Your task to perform on an android device: see sites visited before in the chrome app Image 0: 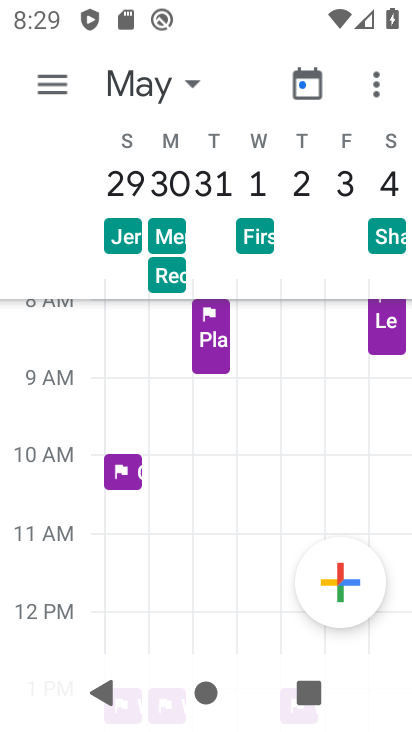
Step 0: press home button
Your task to perform on an android device: see sites visited before in the chrome app Image 1: 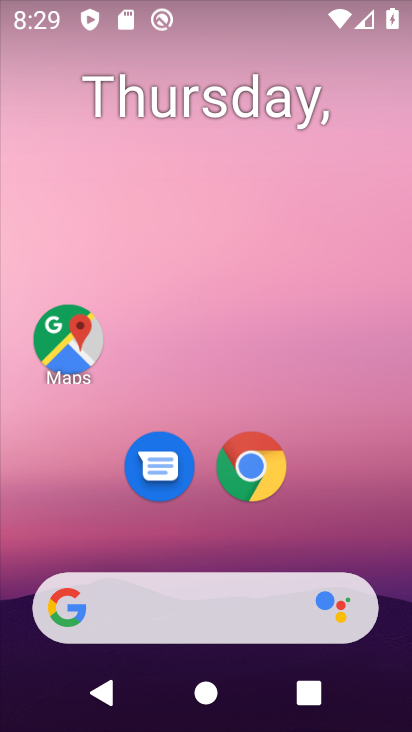
Step 1: click (248, 482)
Your task to perform on an android device: see sites visited before in the chrome app Image 2: 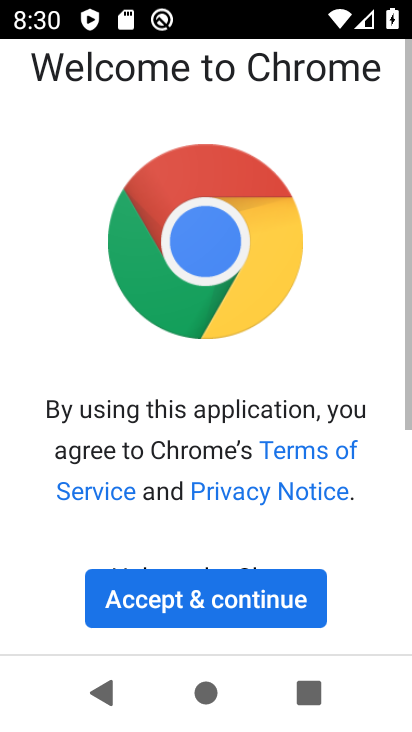
Step 2: click (230, 583)
Your task to perform on an android device: see sites visited before in the chrome app Image 3: 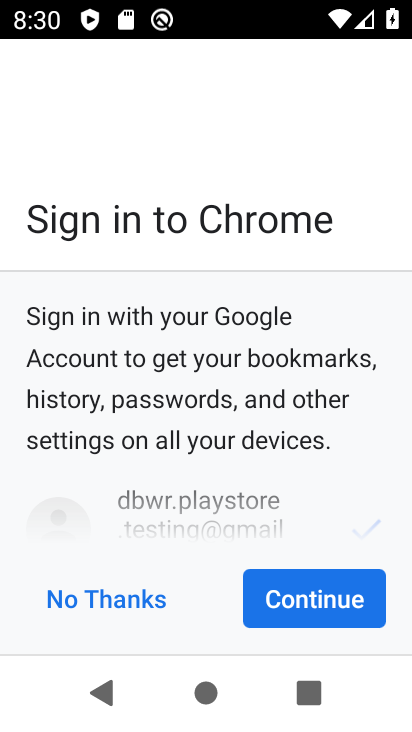
Step 3: click (292, 600)
Your task to perform on an android device: see sites visited before in the chrome app Image 4: 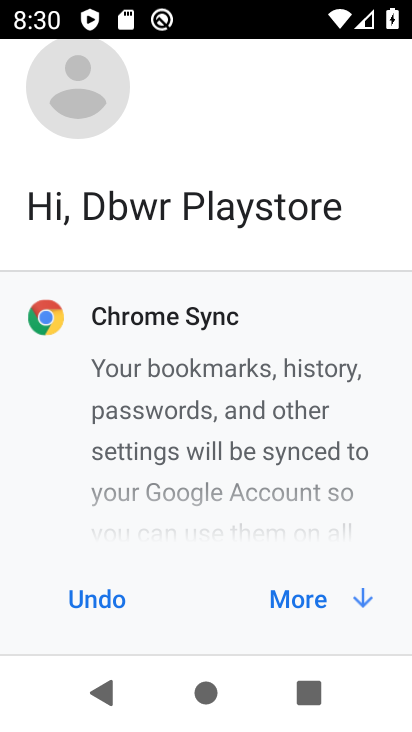
Step 4: click (306, 593)
Your task to perform on an android device: see sites visited before in the chrome app Image 5: 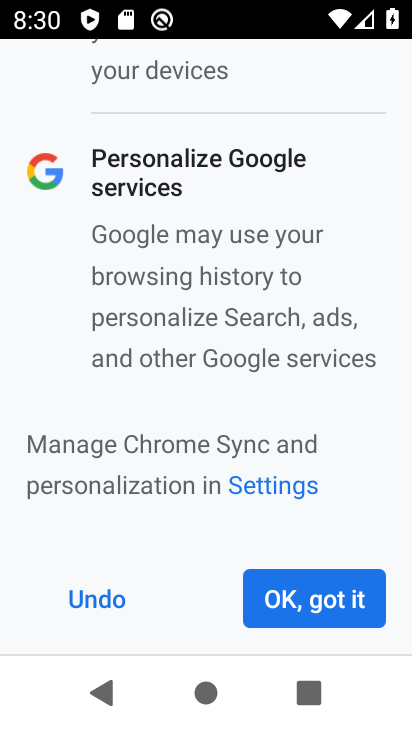
Step 5: click (305, 594)
Your task to perform on an android device: see sites visited before in the chrome app Image 6: 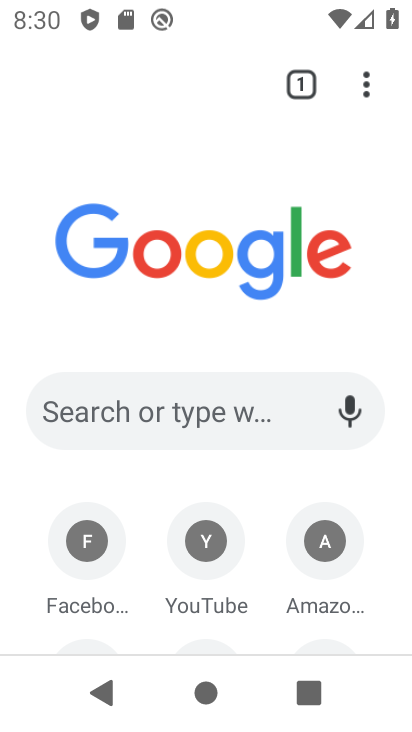
Step 6: task complete